Your task to perform on an android device: change text size in settings app Image 0: 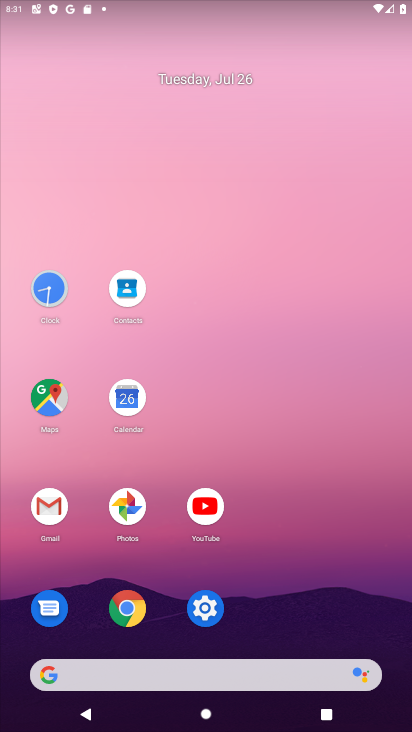
Step 0: click (203, 610)
Your task to perform on an android device: change text size in settings app Image 1: 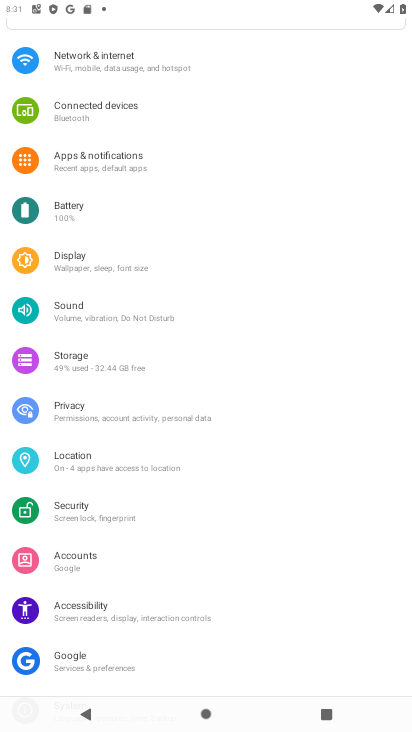
Step 1: click (77, 257)
Your task to perform on an android device: change text size in settings app Image 2: 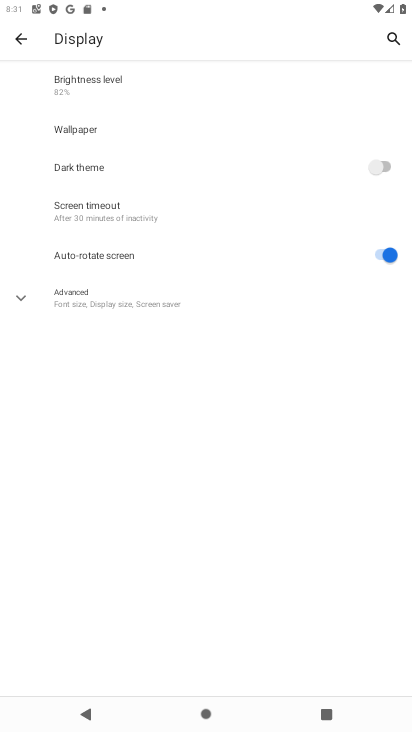
Step 2: click (56, 300)
Your task to perform on an android device: change text size in settings app Image 3: 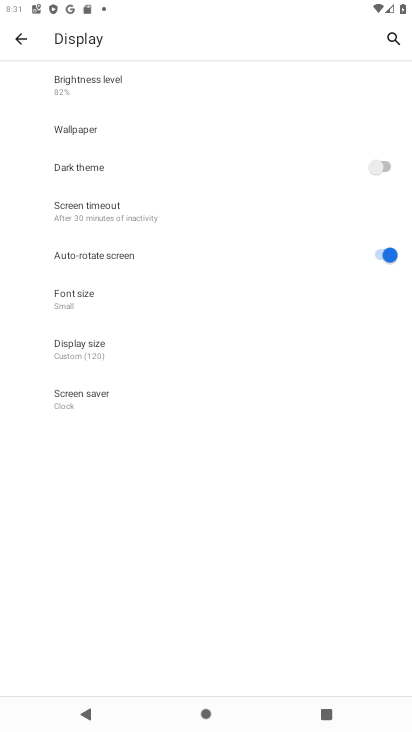
Step 3: click (77, 290)
Your task to perform on an android device: change text size in settings app Image 4: 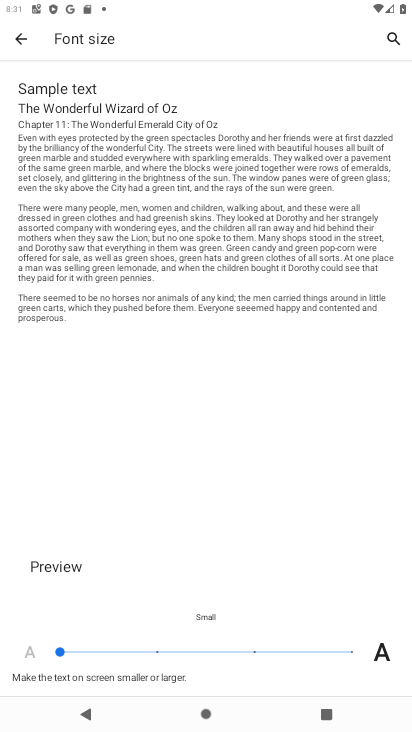
Step 4: click (152, 654)
Your task to perform on an android device: change text size in settings app Image 5: 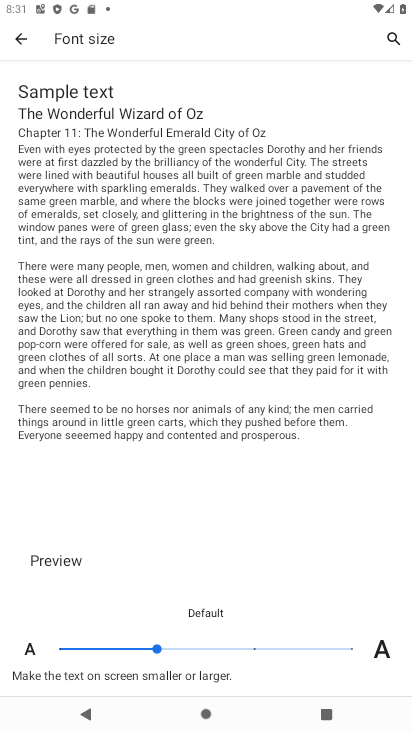
Step 5: task complete